Your task to perform on an android device: Go to Google Image 0: 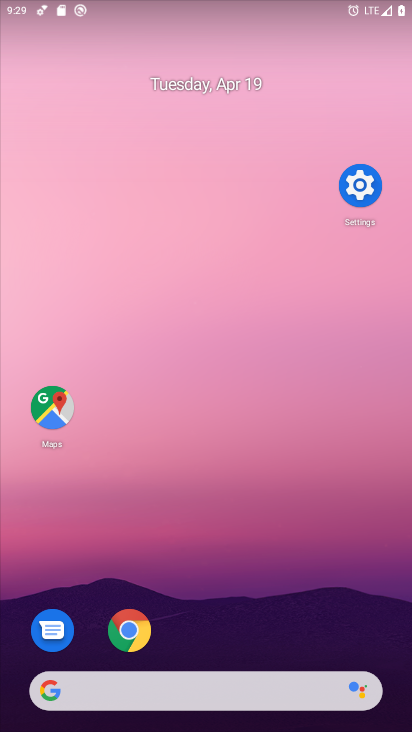
Step 0: drag from (245, 590) to (274, 123)
Your task to perform on an android device: Go to Google Image 1: 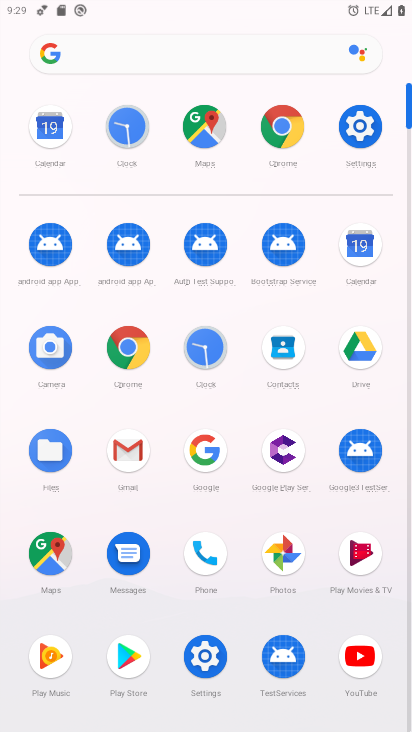
Step 1: click (215, 452)
Your task to perform on an android device: Go to Google Image 2: 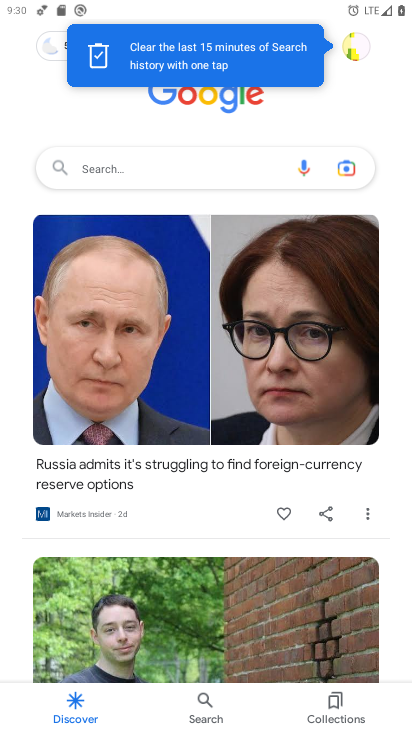
Step 2: task complete